Your task to perform on an android device: Show me the alarms in the clock app Image 0: 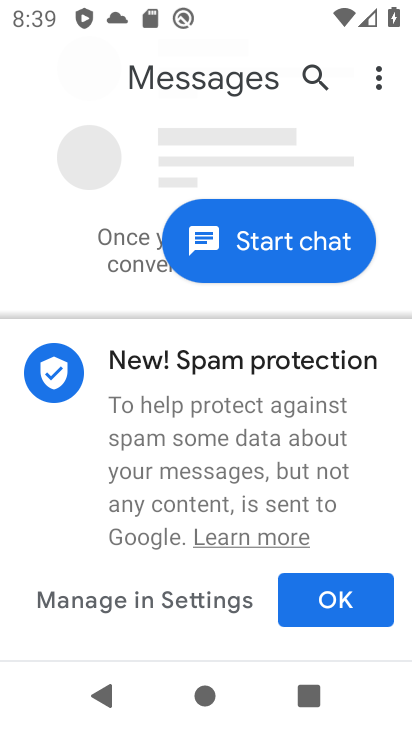
Step 0: press home button
Your task to perform on an android device: Show me the alarms in the clock app Image 1: 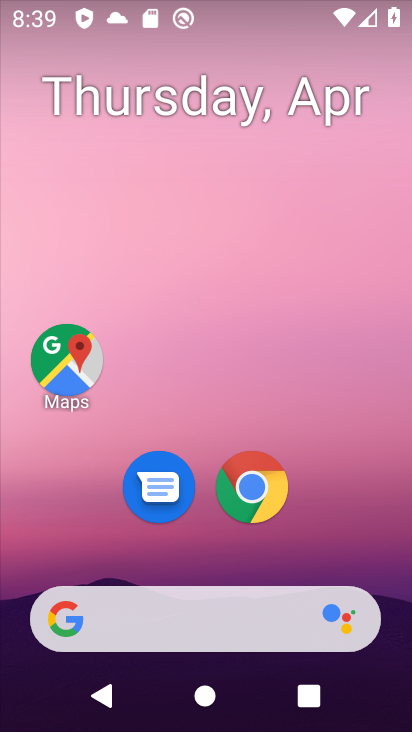
Step 1: drag from (217, 550) to (267, 140)
Your task to perform on an android device: Show me the alarms in the clock app Image 2: 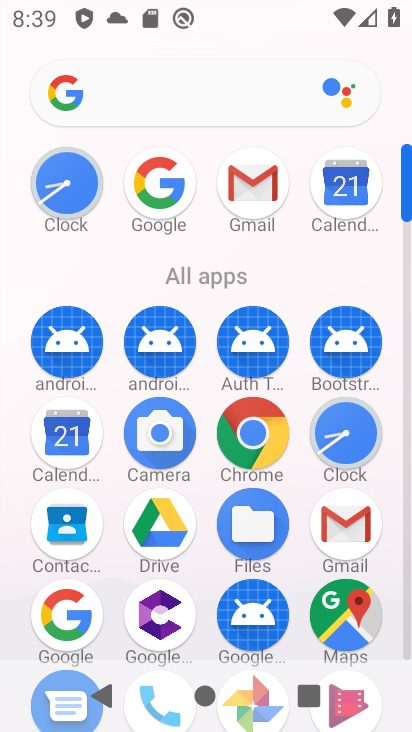
Step 2: click (346, 411)
Your task to perform on an android device: Show me the alarms in the clock app Image 3: 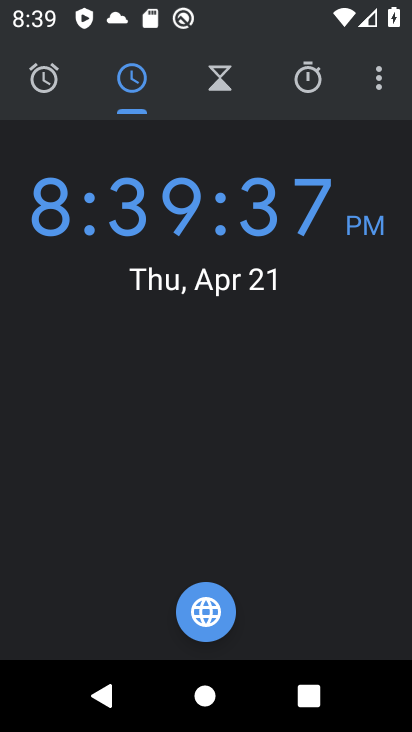
Step 3: click (380, 87)
Your task to perform on an android device: Show me the alarms in the clock app Image 4: 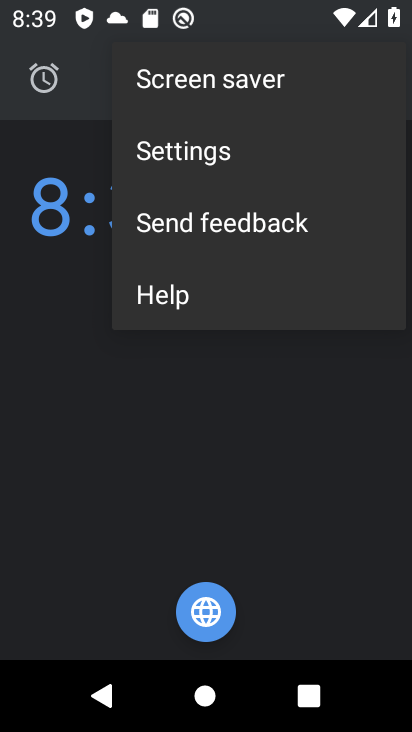
Step 4: click (266, 141)
Your task to perform on an android device: Show me the alarms in the clock app Image 5: 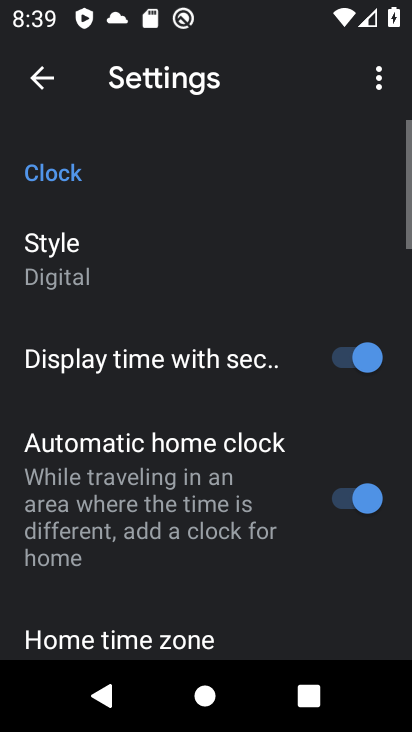
Step 5: click (36, 77)
Your task to perform on an android device: Show me the alarms in the clock app Image 6: 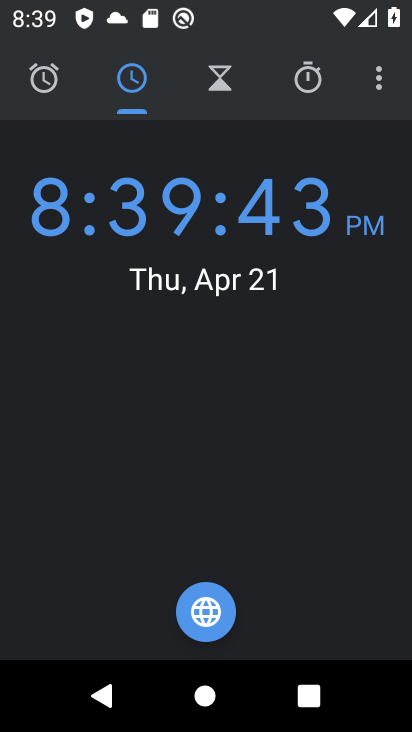
Step 6: click (37, 79)
Your task to perform on an android device: Show me the alarms in the clock app Image 7: 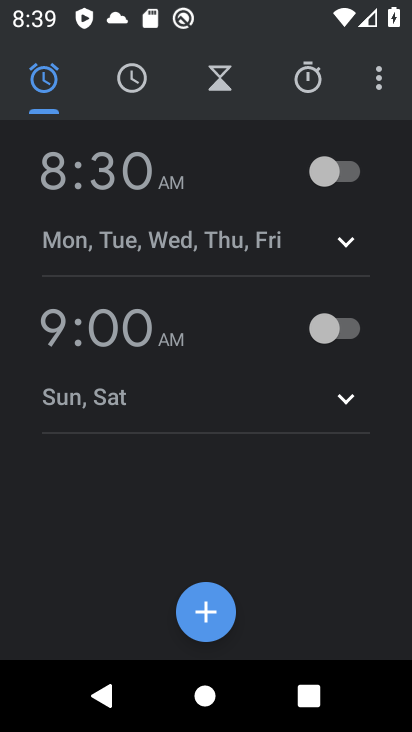
Step 7: task complete